Your task to perform on an android device: Show me the alarms in the clock app Image 0: 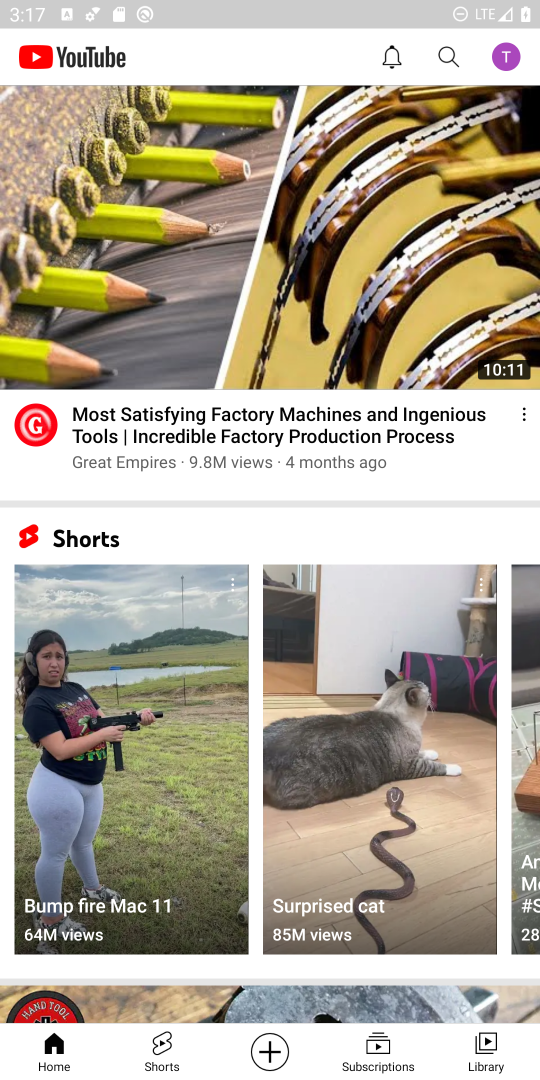
Step 0: press home button
Your task to perform on an android device: Show me the alarms in the clock app Image 1: 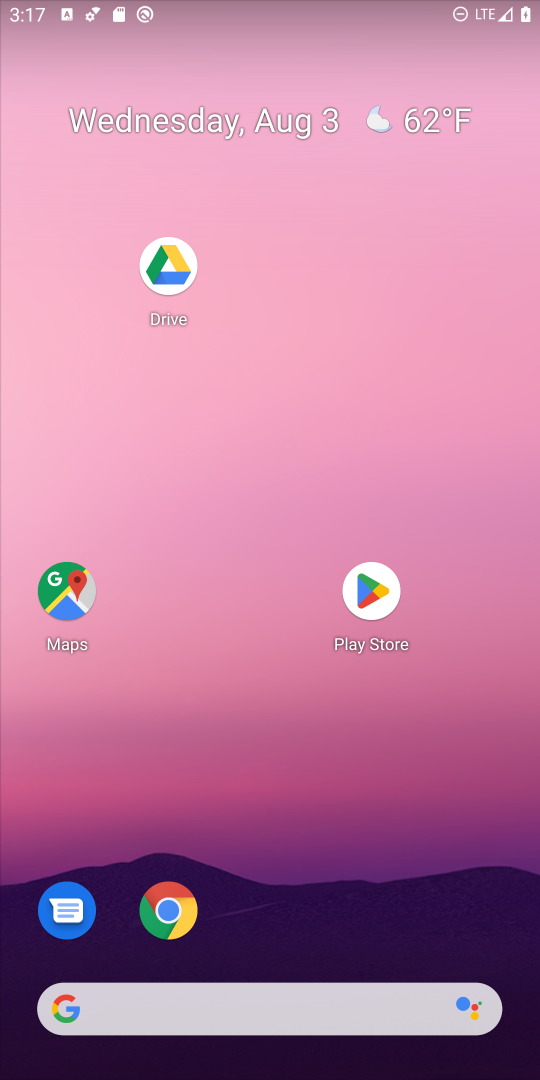
Step 1: drag from (313, 977) to (338, 260)
Your task to perform on an android device: Show me the alarms in the clock app Image 2: 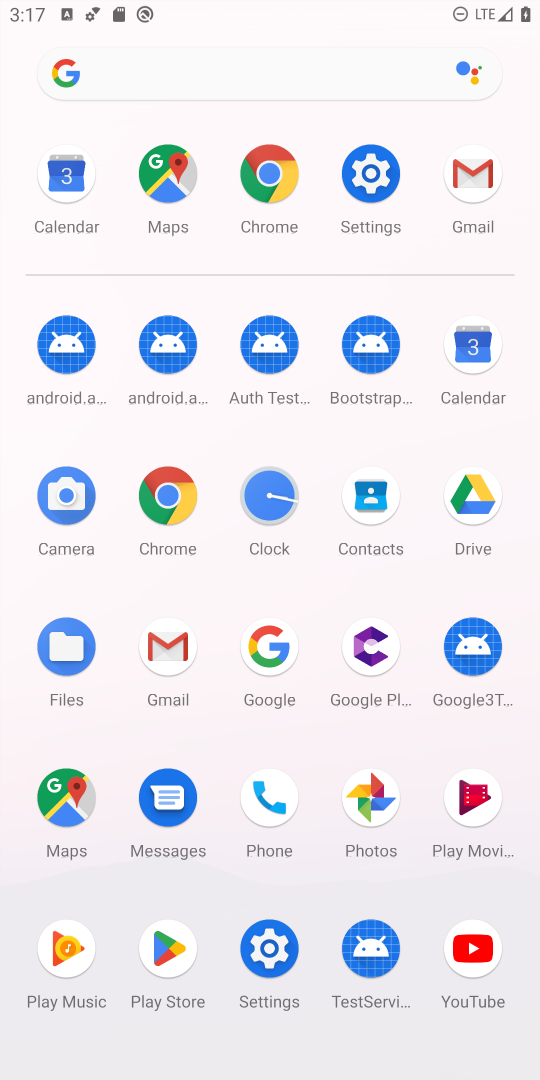
Step 2: click (279, 490)
Your task to perform on an android device: Show me the alarms in the clock app Image 3: 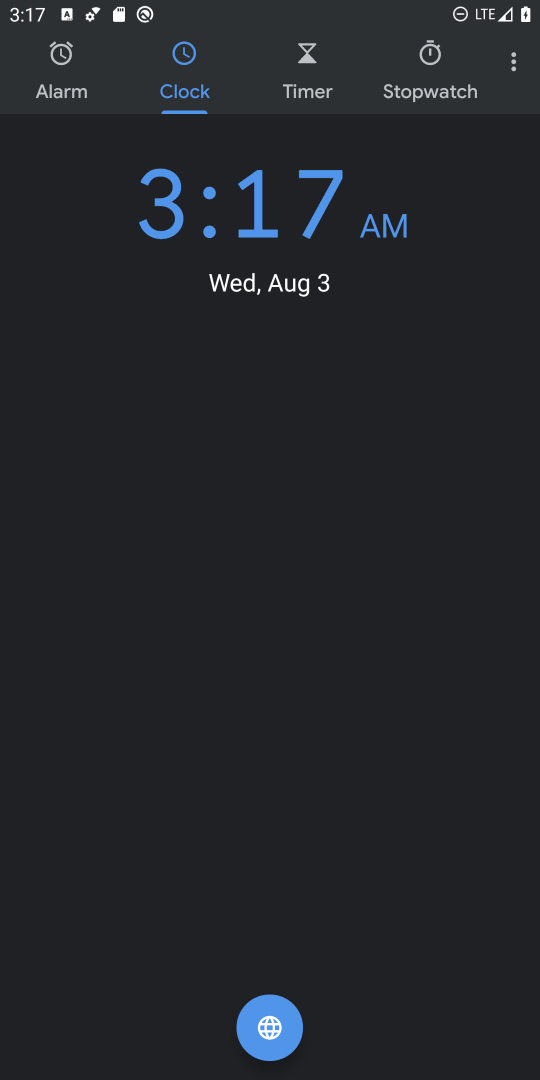
Step 3: click (65, 68)
Your task to perform on an android device: Show me the alarms in the clock app Image 4: 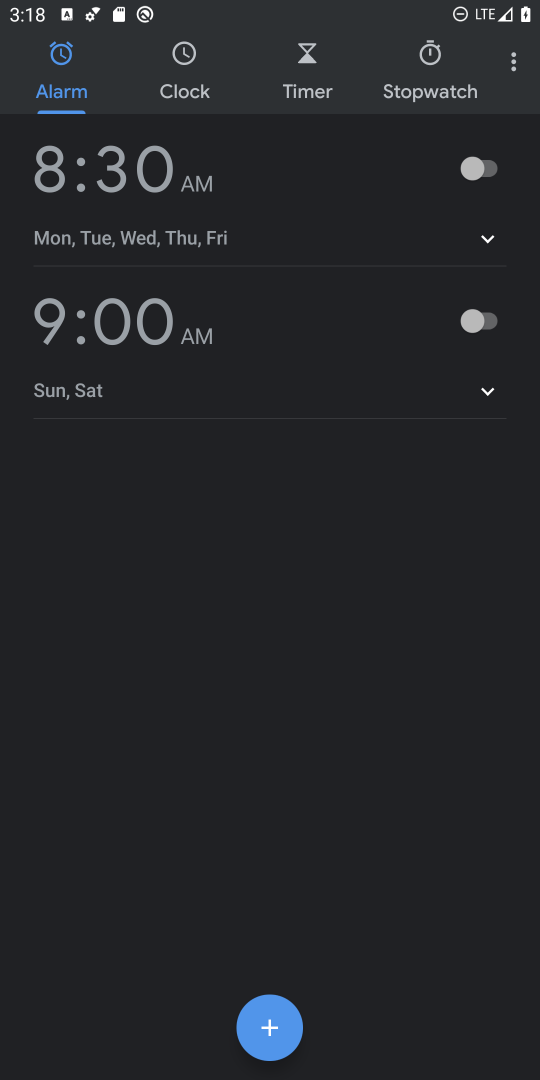
Step 4: task complete